Your task to perform on an android device: Open Google Chrome Image 0: 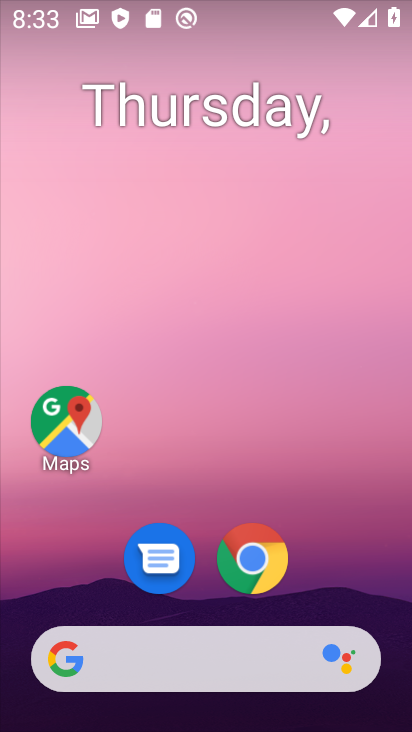
Step 0: click (248, 554)
Your task to perform on an android device: Open Google Chrome Image 1: 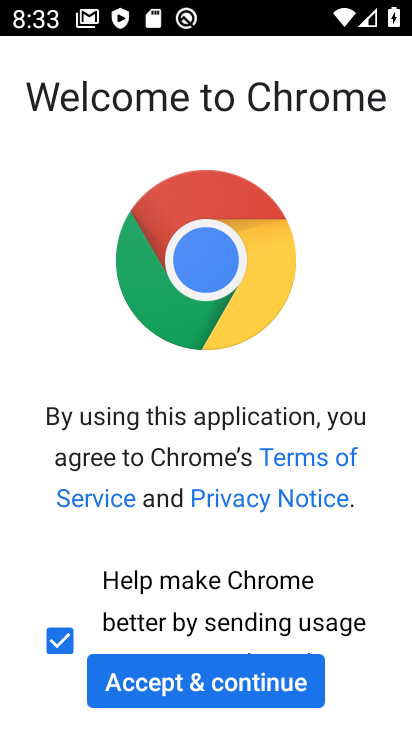
Step 1: click (185, 686)
Your task to perform on an android device: Open Google Chrome Image 2: 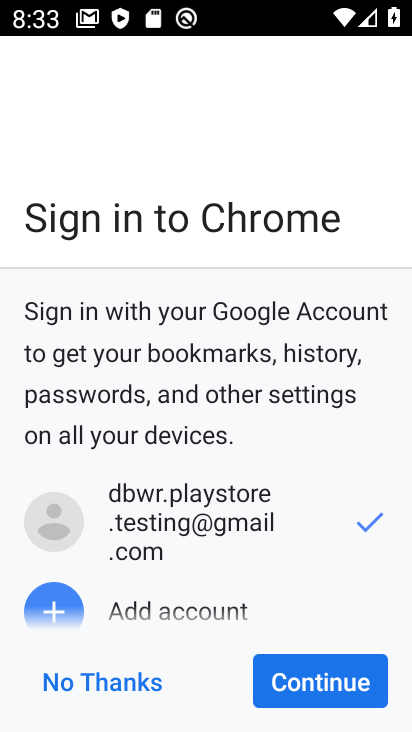
Step 2: click (322, 671)
Your task to perform on an android device: Open Google Chrome Image 3: 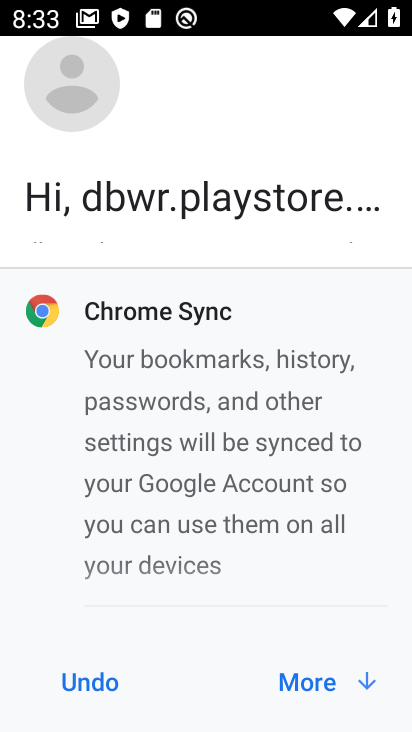
Step 3: click (317, 676)
Your task to perform on an android device: Open Google Chrome Image 4: 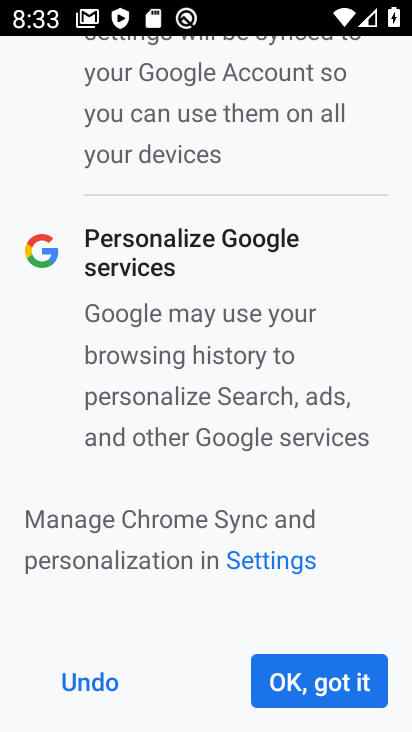
Step 4: click (324, 683)
Your task to perform on an android device: Open Google Chrome Image 5: 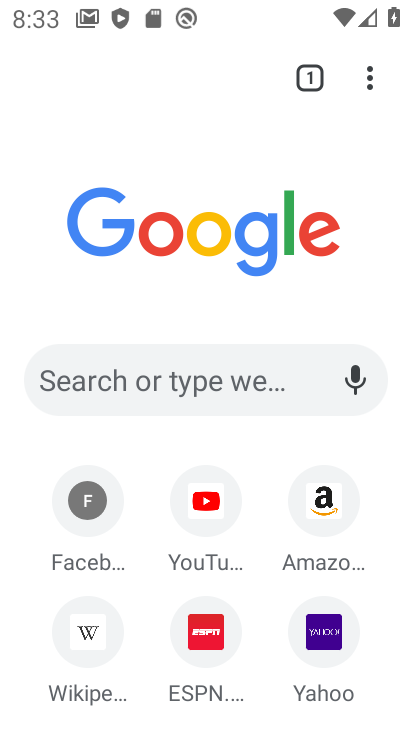
Step 5: task complete